Your task to perform on an android device: change keyboard looks Image 0: 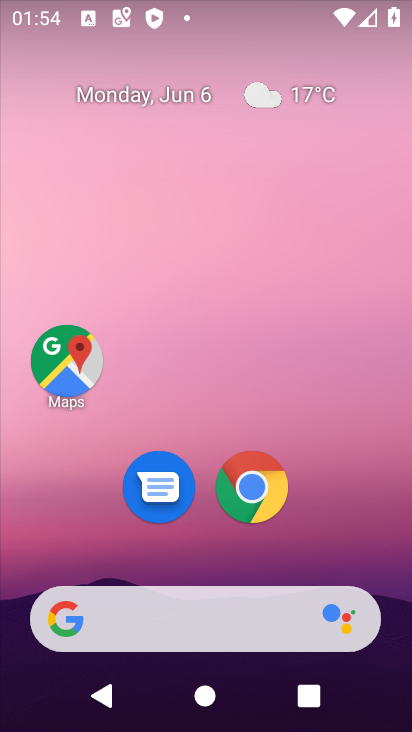
Step 0: drag from (397, 632) to (367, 41)
Your task to perform on an android device: change keyboard looks Image 1: 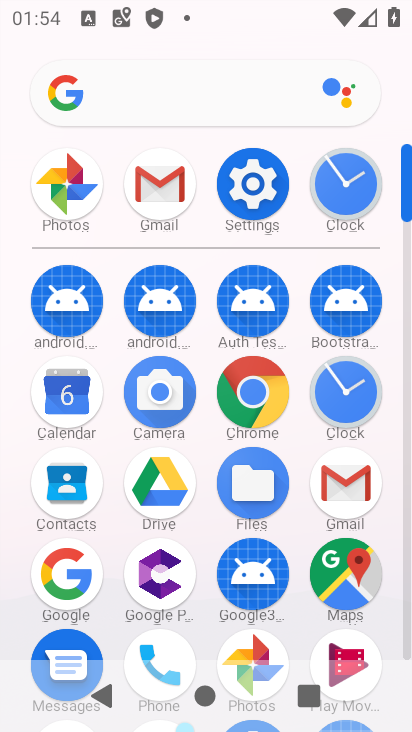
Step 1: click (406, 644)
Your task to perform on an android device: change keyboard looks Image 2: 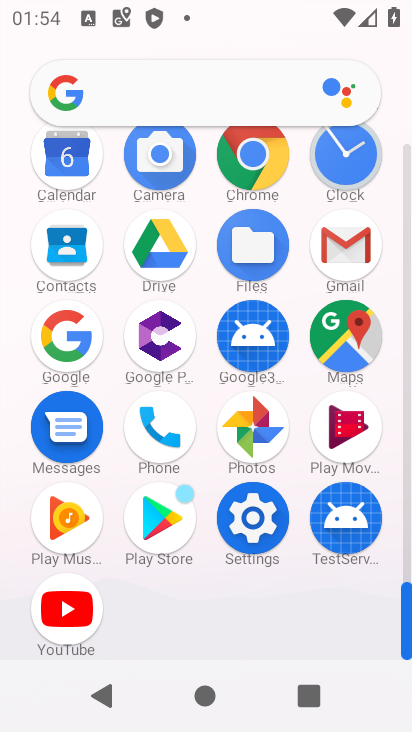
Step 2: click (254, 516)
Your task to perform on an android device: change keyboard looks Image 3: 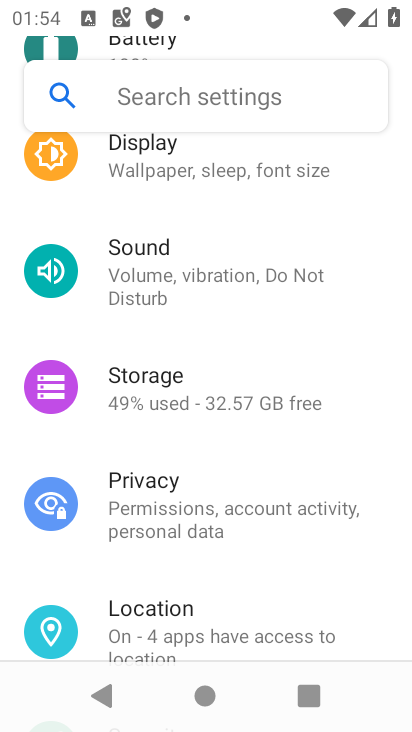
Step 3: drag from (345, 624) to (324, 178)
Your task to perform on an android device: change keyboard looks Image 4: 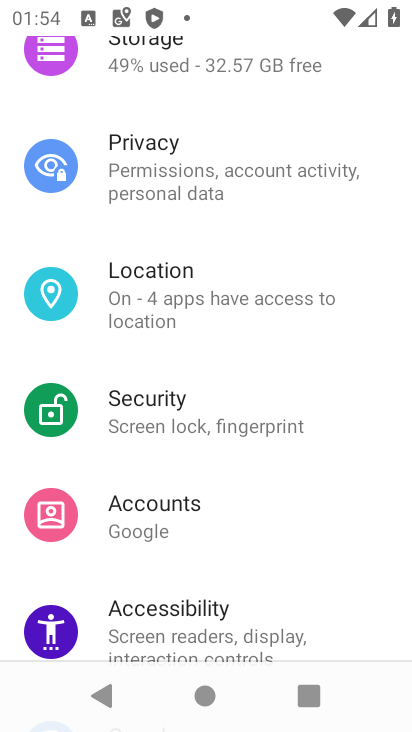
Step 4: drag from (338, 629) to (337, 195)
Your task to perform on an android device: change keyboard looks Image 5: 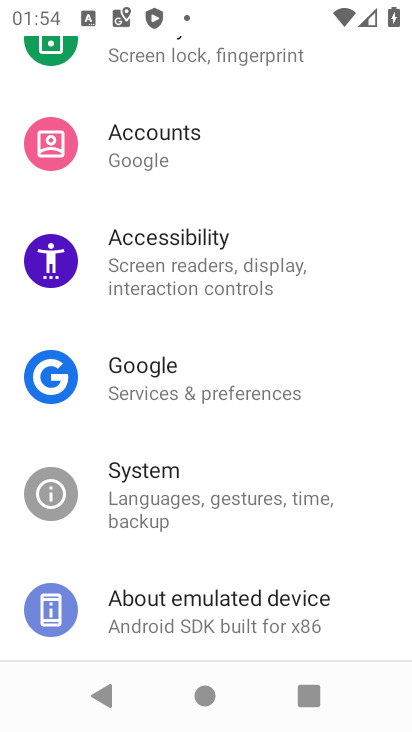
Step 5: click (151, 500)
Your task to perform on an android device: change keyboard looks Image 6: 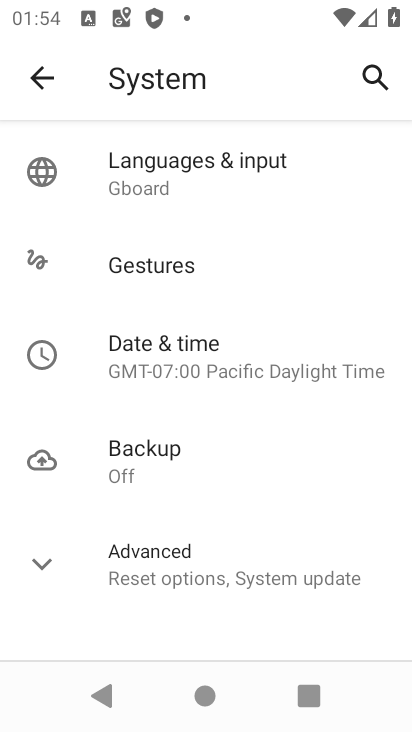
Step 6: click (132, 155)
Your task to perform on an android device: change keyboard looks Image 7: 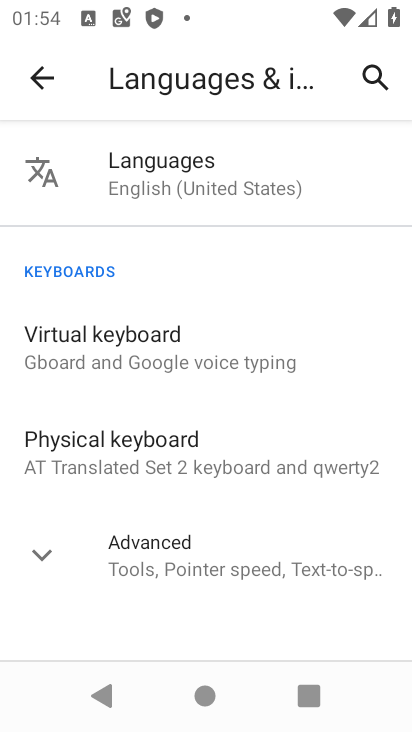
Step 7: click (93, 435)
Your task to perform on an android device: change keyboard looks Image 8: 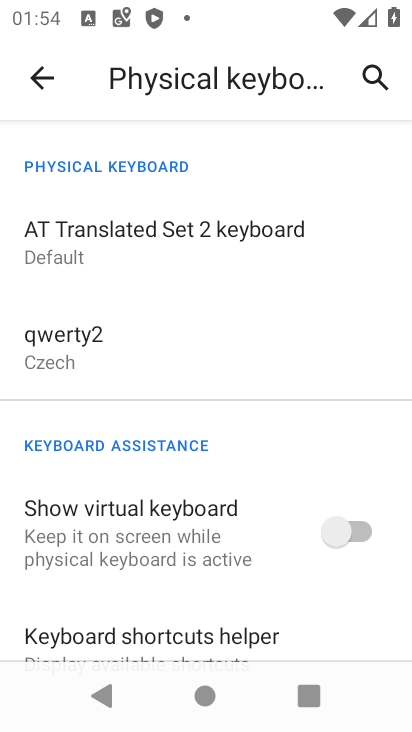
Step 8: click (51, 329)
Your task to perform on an android device: change keyboard looks Image 9: 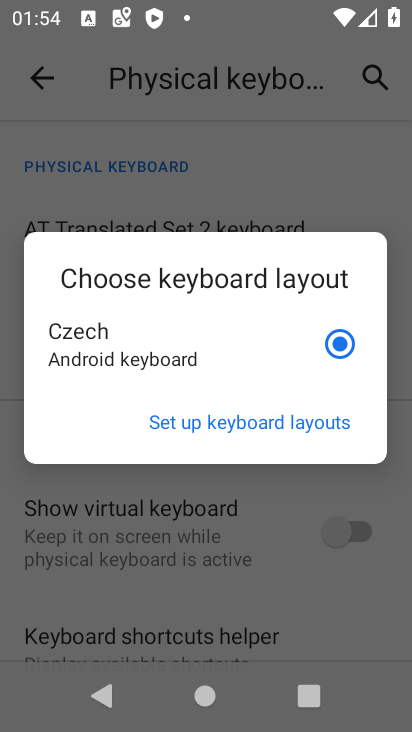
Step 9: click (283, 421)
Your task to perform on an android device: change keyboard looks Image 10: 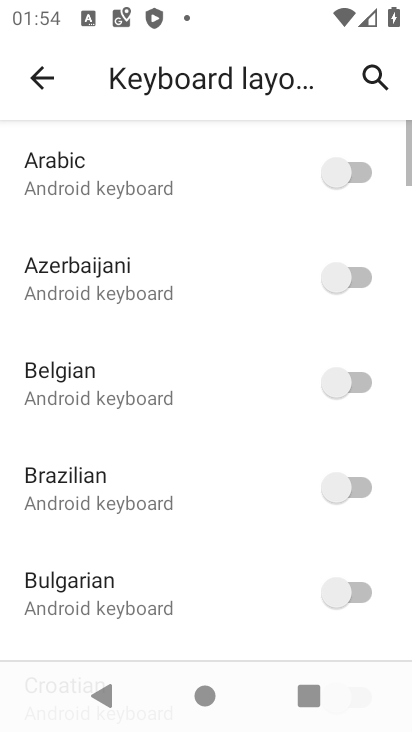
Step 10: drag from (236, 559) to (243, 103)
Your task to perform on an android device: change keyboard looks Image 11: 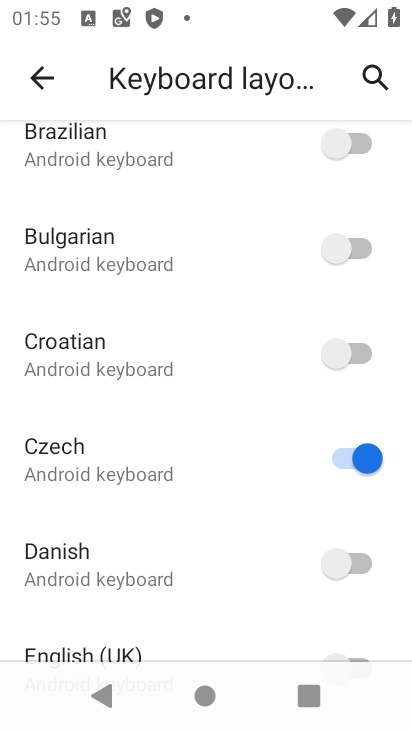
Step 11: drag from (351, 599) to (289, 118)
Your task to perform on an android device: change keyboard looks Image 12: 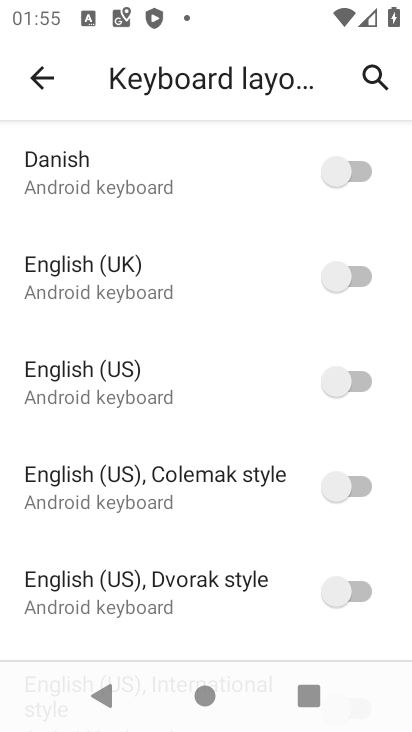
Step 12: click (357, 382)
Your task to perform on an android device: change keyboard looks Image 13: 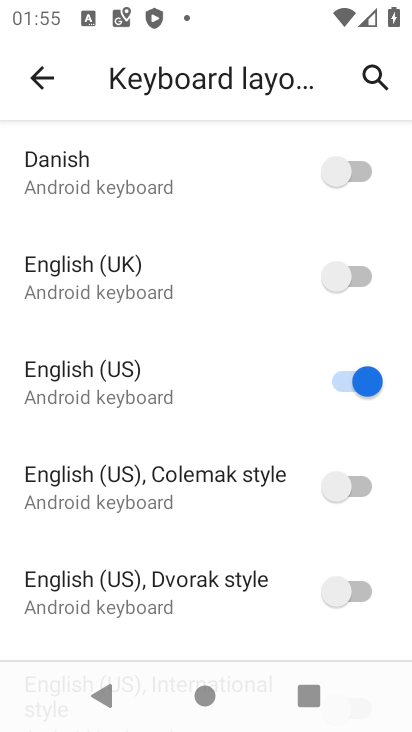
Step 13: task complete